Your task to perform on an android device: check battery use Image 0: 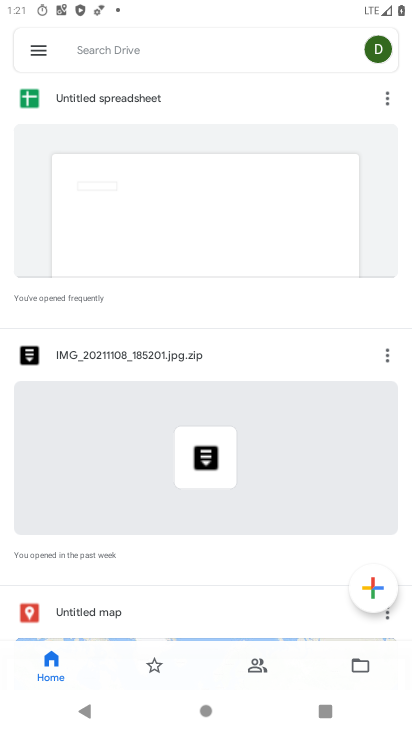
Step 0: press home button
Your task to perform on an android device: check battery use Image 1: 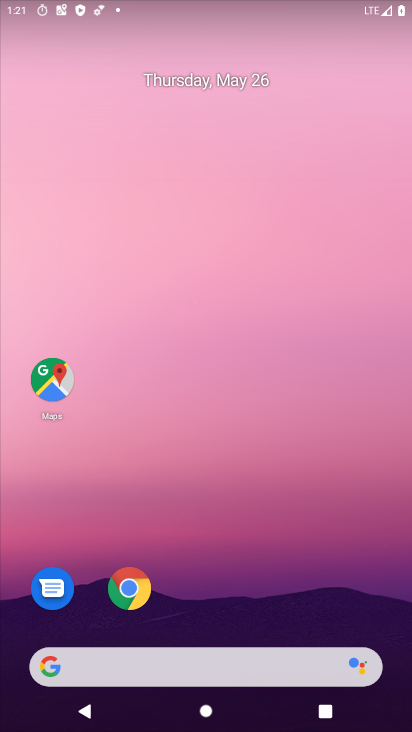
Step 1: drag from (393, 690) to (355, 79)
Your task to perform on an android device: check battery use Image 2: 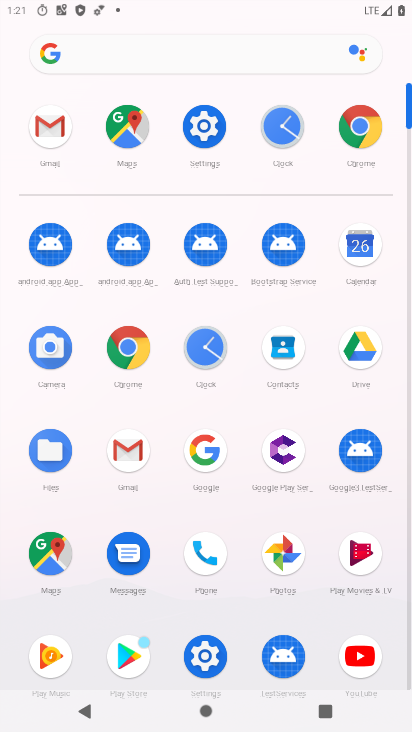
Step 2: click (193, 119)
Your task to perform on an android device: check battery use Image 3: 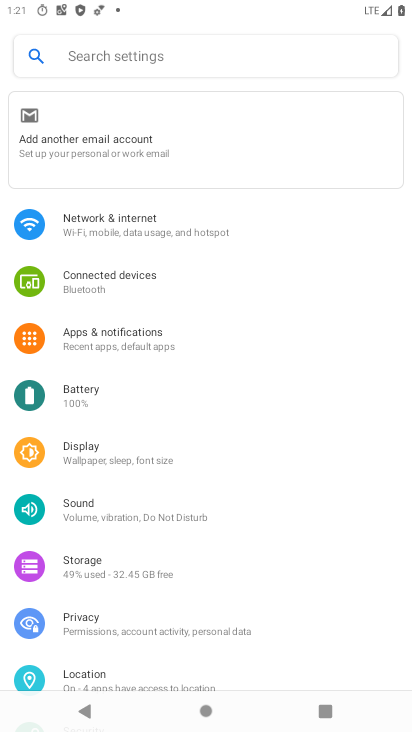
Step 3: click (71, 386)
Your task to perform on an android device: check battery use Image 4: 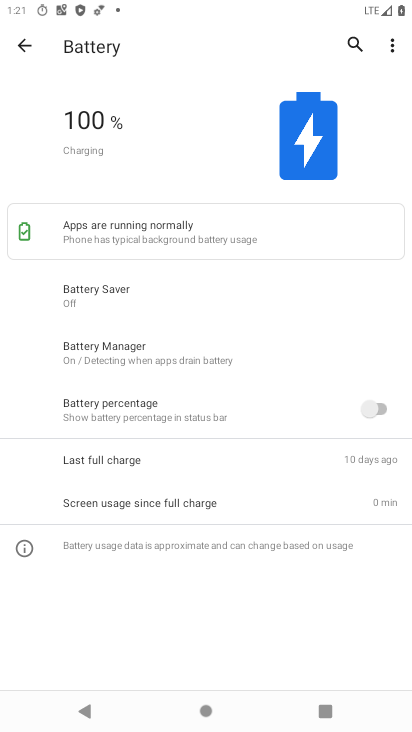
Step 4: click (393, 46)
Your task to perform on an android device: check battery use Image 5: 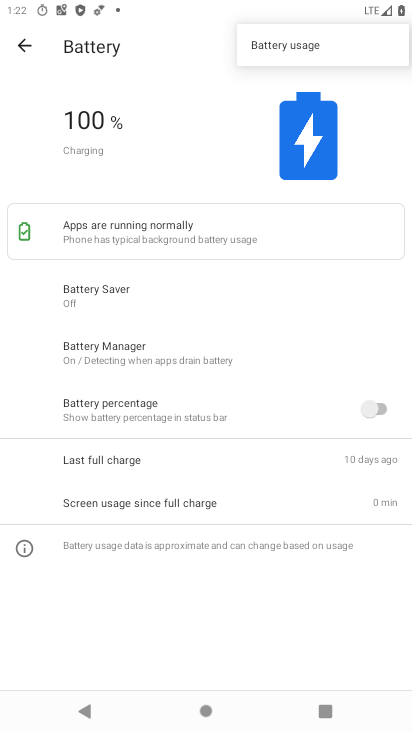
Step 5: click (318, 39)
Your task to perform on an android device: check battery use Image 6: 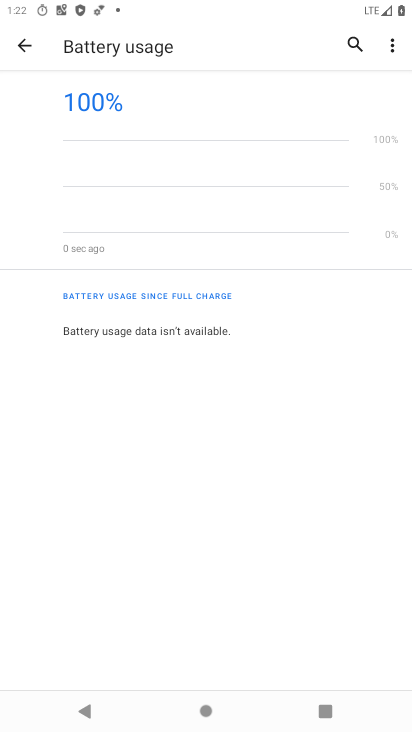
Step 6: task complete